Your task to perform on an android device: empty trash in the gmail app Image 0: 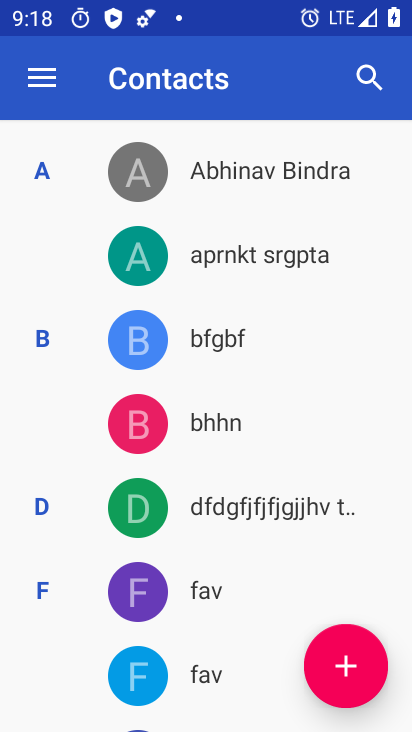
Step 0: press home button
Your task to perform on an android device: empty trash in the gmail app Image 1: 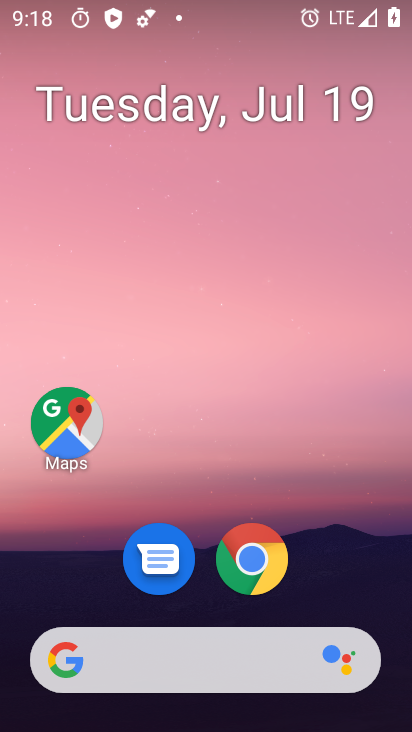
Step 1: drag from (364, 551) to (236, 2)
Your task to perform on an android device: empty trash in the gmail app Image 2: 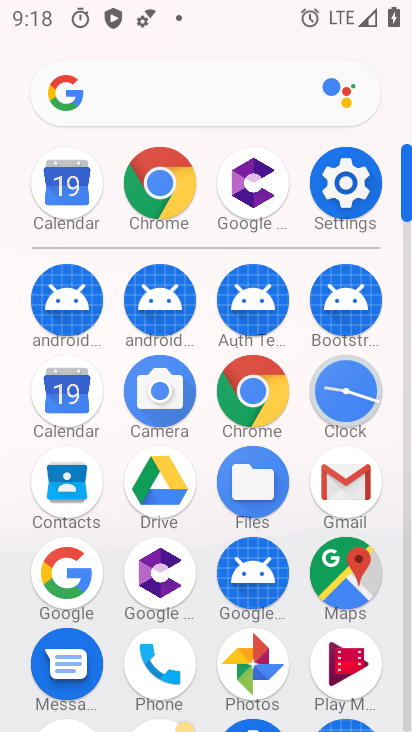
Step 2: click (344, 490)
Your task to perform on an android device: empty trash in the gmail app Image 3: 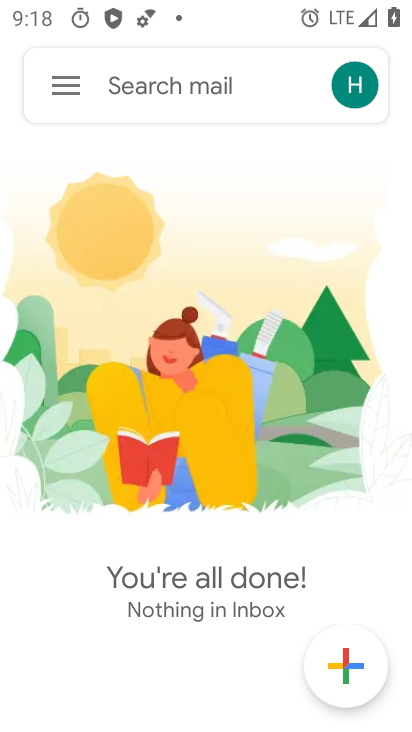
Step 3: click (68, 93)
Your task to perform on an android device: empty trash in the gmail app Image 4: 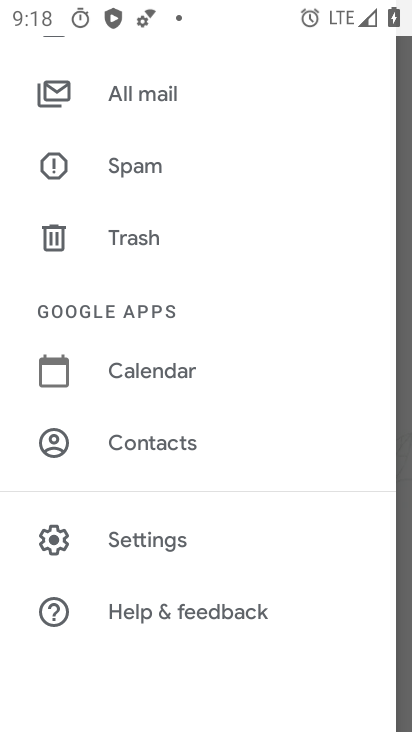
Step 4: click (110, 235)
Your task to perform on an android device: empty trash in the gmail app Image 5: 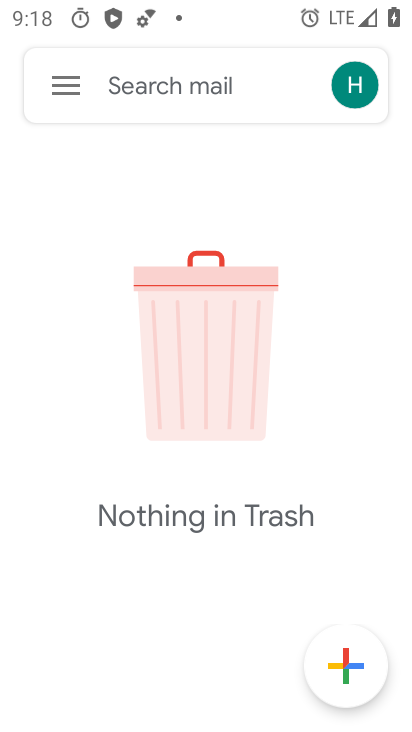
Step 5: task complete